Your task to perform on an android device: toggle sleep mode Image 0: 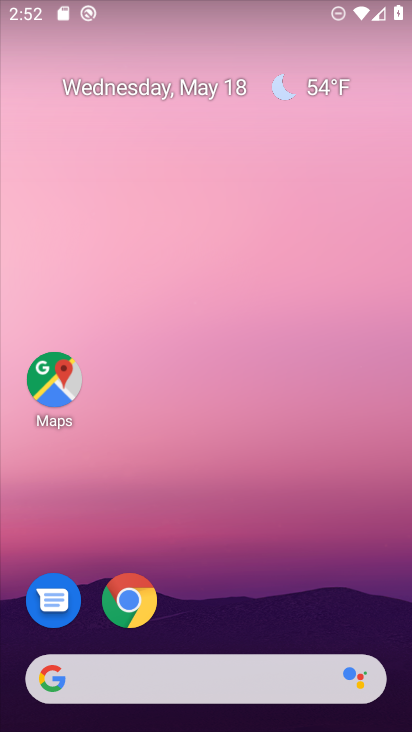
Step 0: drag from (208, 589) to (226, 198)
Your task to perform on an android device: toggle sleep mode Image 1: 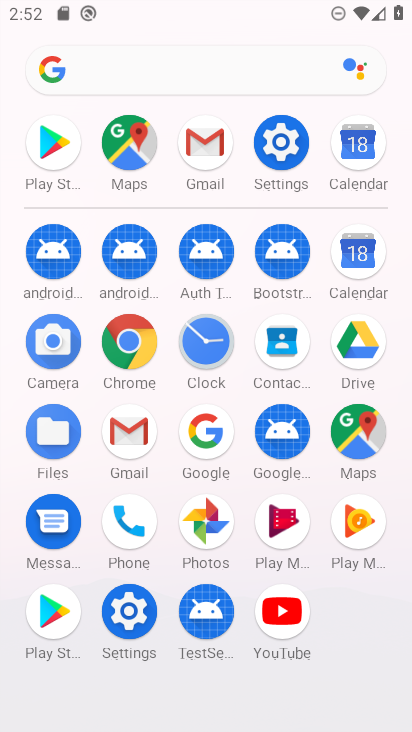
Step 1: click (290, 153)
Your task to perform on an android device: toggle sleep mode Image 2: 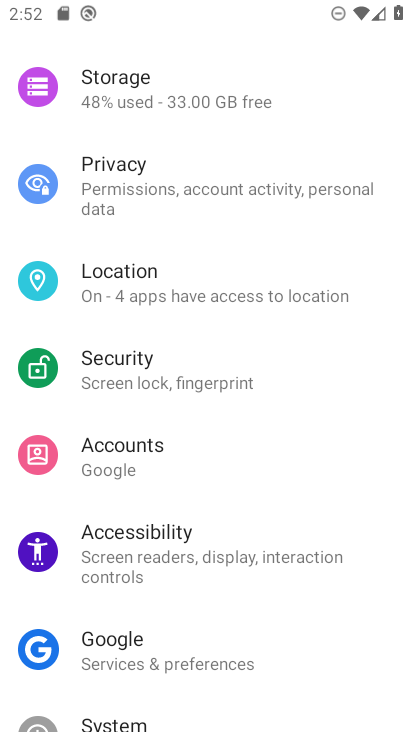
Step 2: drag from (197, 81) to (161, 580)
Your task to perform on an android device: toggle sleep mode Image 3: 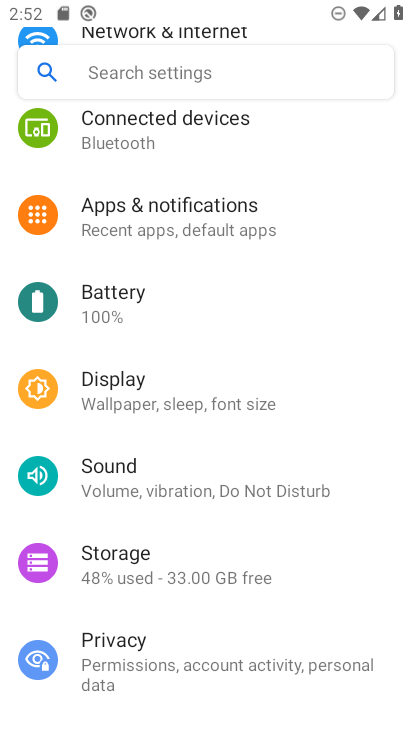
Step 3: click (139, 68)
Your task to perform on an android device: toggle sleep mode Image 4: 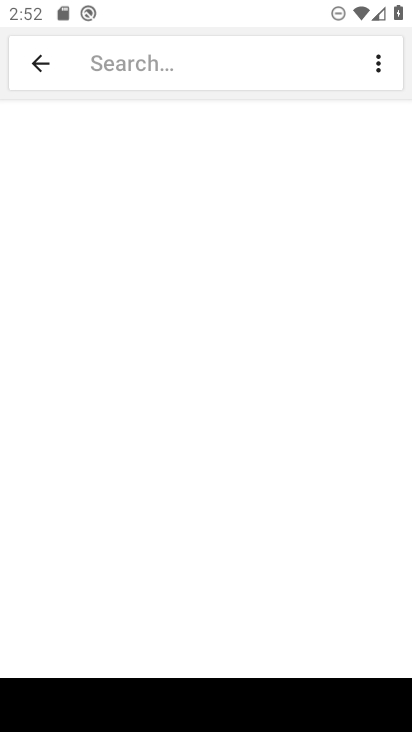
Step 4: type "sleep mode"
Your task to perform on an android device: toggle sleep mode Image 5: 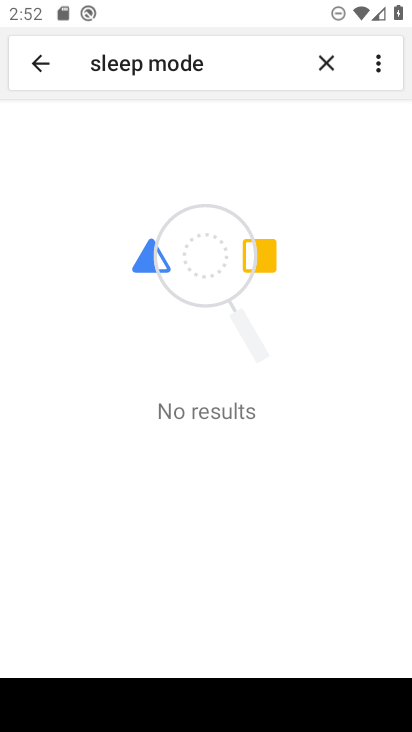
Step 5: task complete